Your task to perform on an android device: change the clock display to digital Image 0: 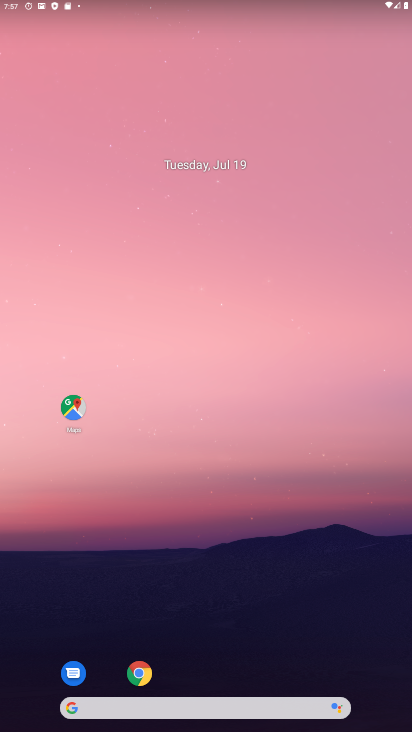
Step 0: drag from (251, 677) to (293, 205)
Your task to perform on an android device: change the clock display to digital Image 1: 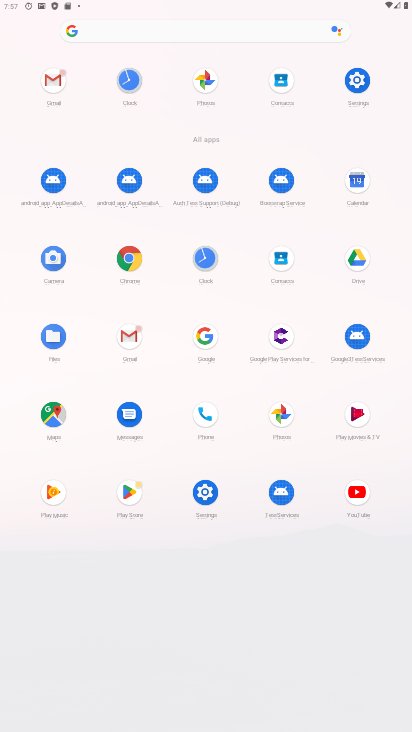
Step 1: click (198, 252)
Your task to perform on an android device: change the clock display to digital Image 2: 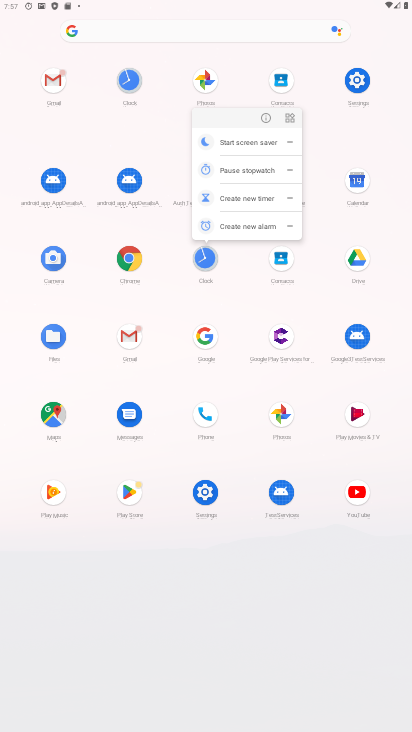
Step 2: click (203, 264)
Your task to perform on an android device: change the clock display to digital Image 3: 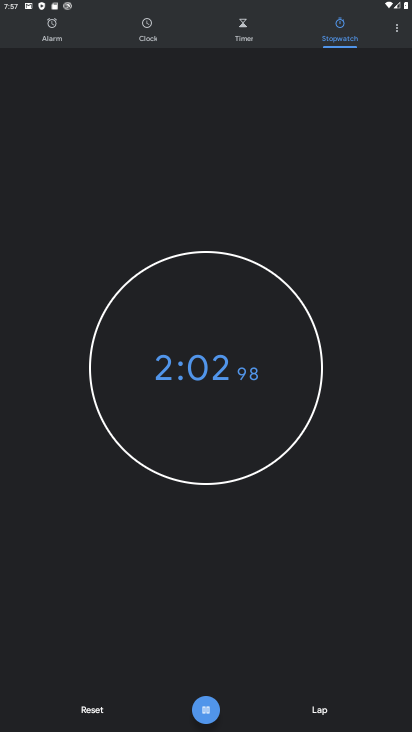
Step 3: click (388, 27)
Your task to perform on an android device: change the clock display to digital Image 4: 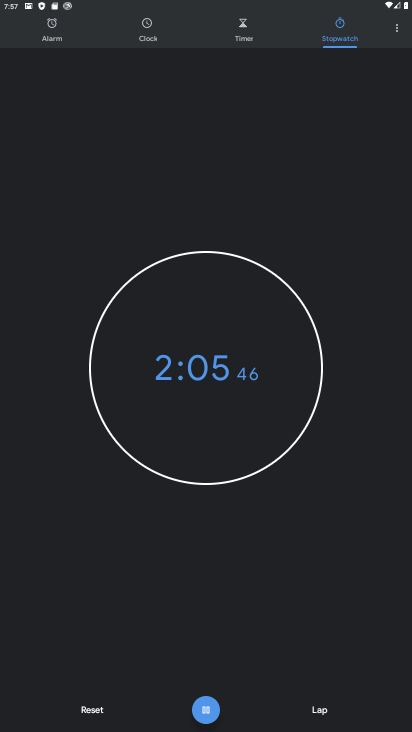
Step 4: click (394, 29)
Your task to perform on an android device: change the clock display to digital Image 5: 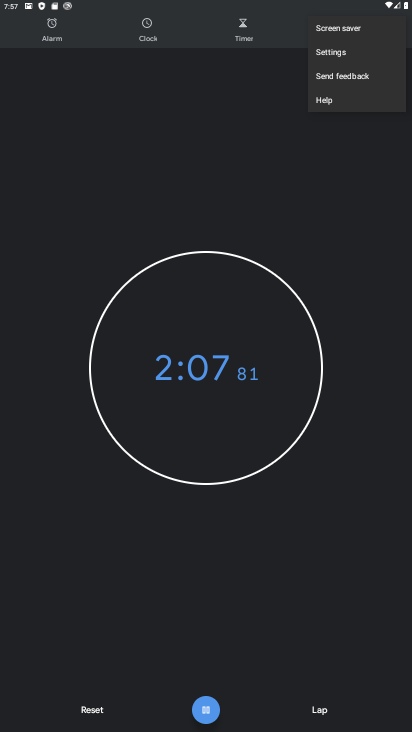
Step 5: click (363, 52)
Your task to perform on an android device: change the clock display to digital Image 6: 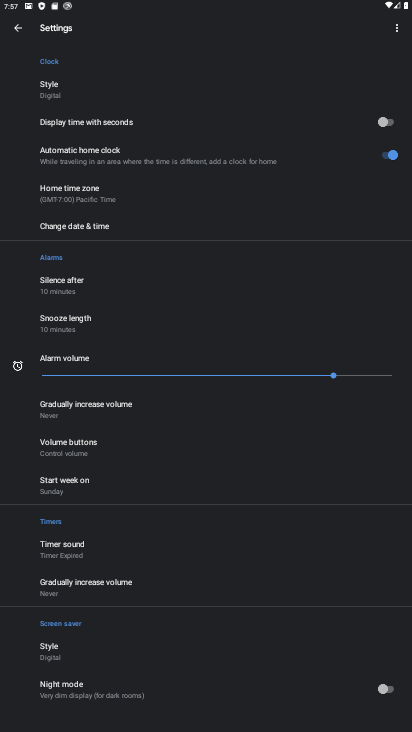
Step 6: click (216, 87)
Your task to perform on an android device: change the clock display to digital Image 7: 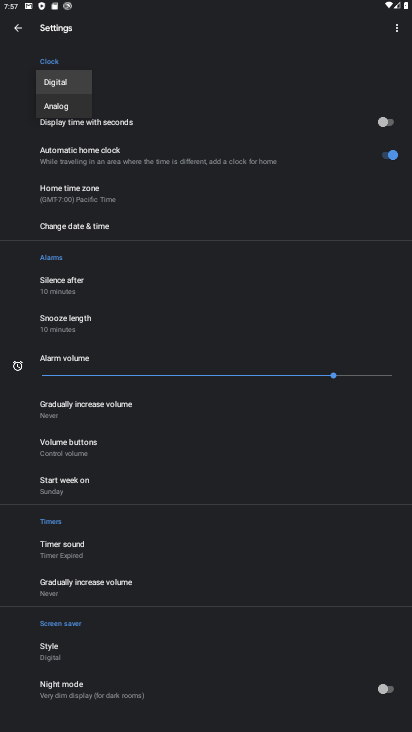
Step 7: task complete